Your task to perform on an android device: set the timer Image 0: 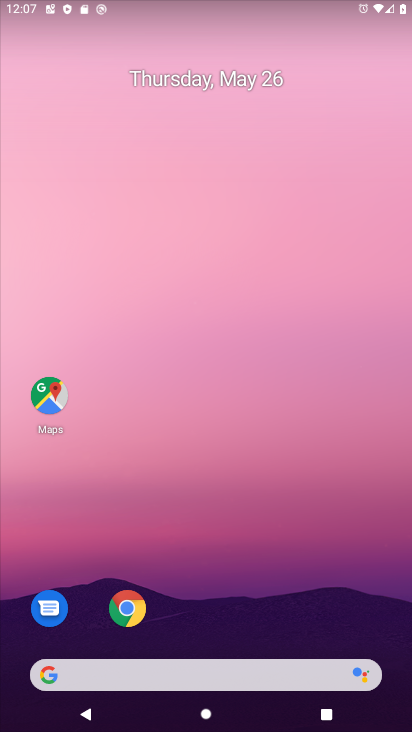
Step 0: drag from (231, 726) to (230, 137)
Your task to perform on an android device: set the timer Image 1: 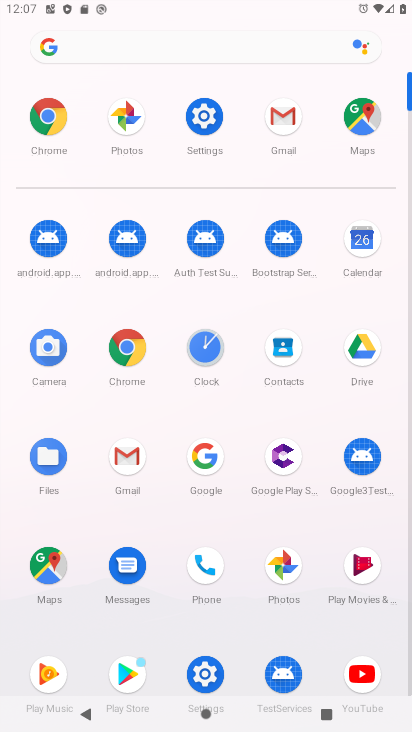
Step 1: click (206, 348)
Your task to perform on an android device: set the timer Image 2: 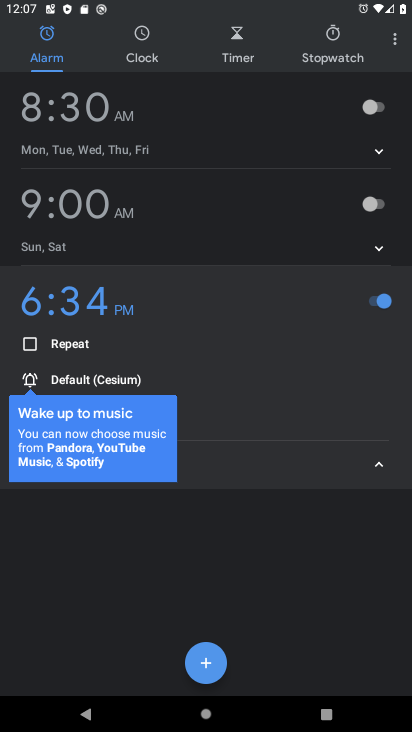
Step 2: click (229, 38)
Your task to perform on an android device: set the timer Image 3: 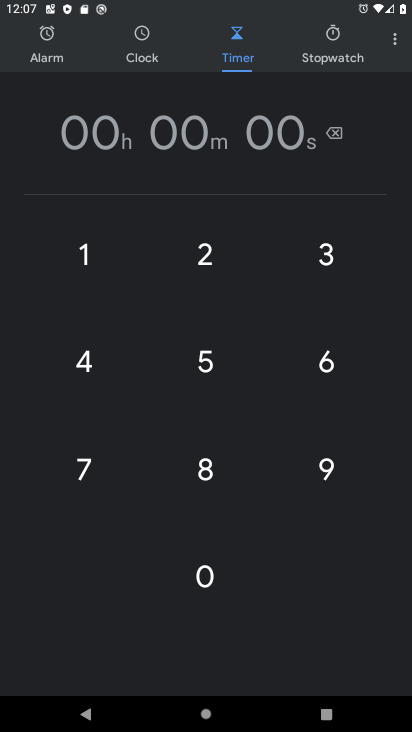
Step 3: click (207, 252)
Your task to perform on an android device: set the timer Image 4: 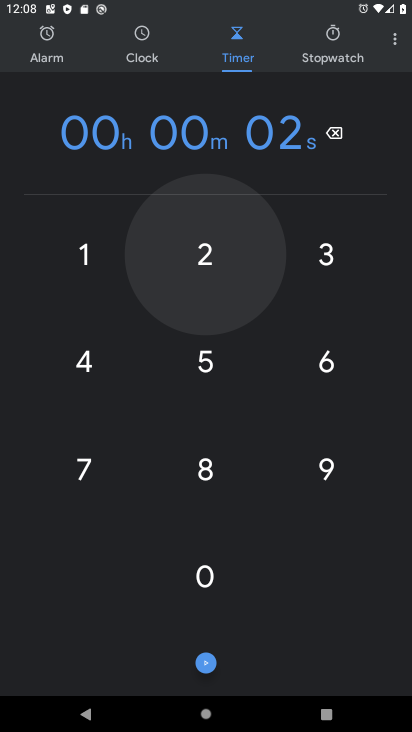
Step 4: click (207, 344)
Your task to perform on an android device: set the timer Image 5: 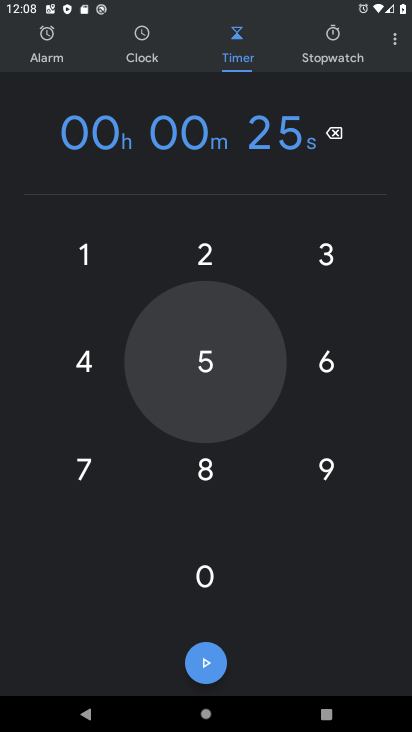
Step 5: click (98, 359)
Your task to perform on an android device: set the timer Image 6: 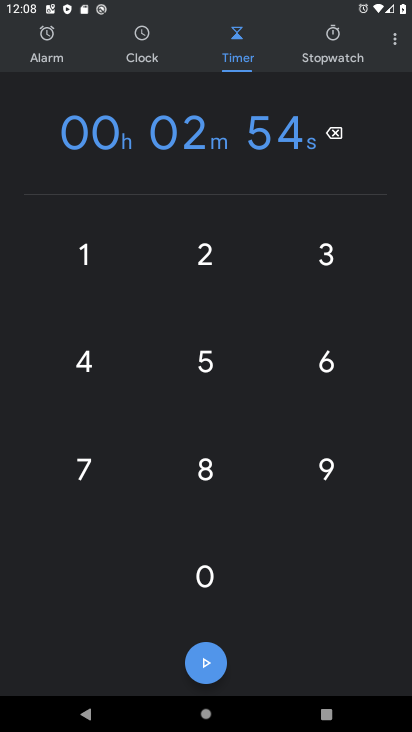
Step 6: click (89, 478)
Your task to perform on an android device: set the timer Image 7: 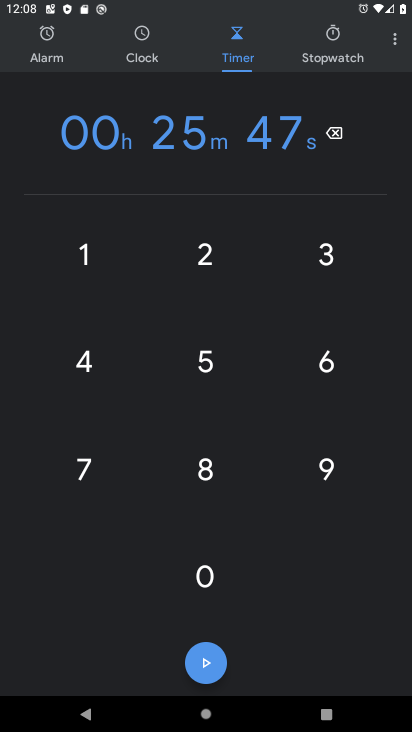
Step 7: click (202, 674)
Your task to perform on an android device: set the timer Image 8: 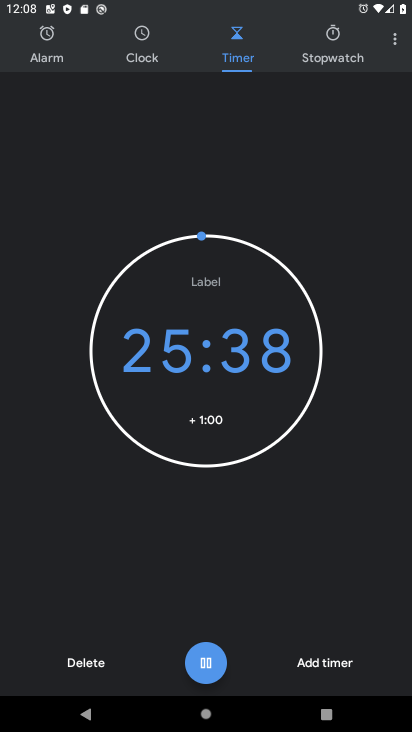
Step 8: task complete